Your task to perform on an android device: Show me recent news Image 0: 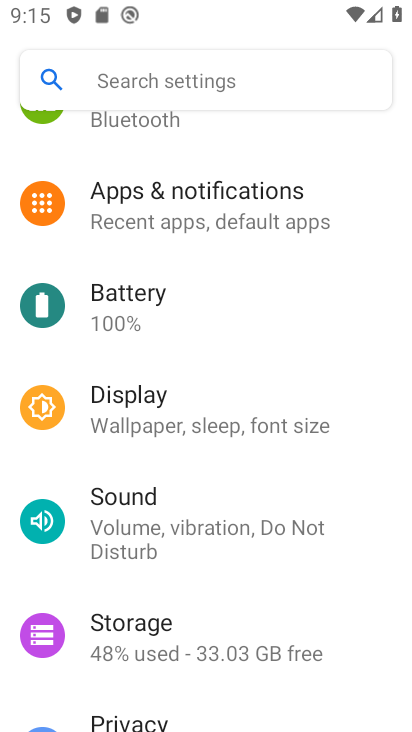
Step 0: press home button
Your task to perform on an android device: Show me recent news Image 1: 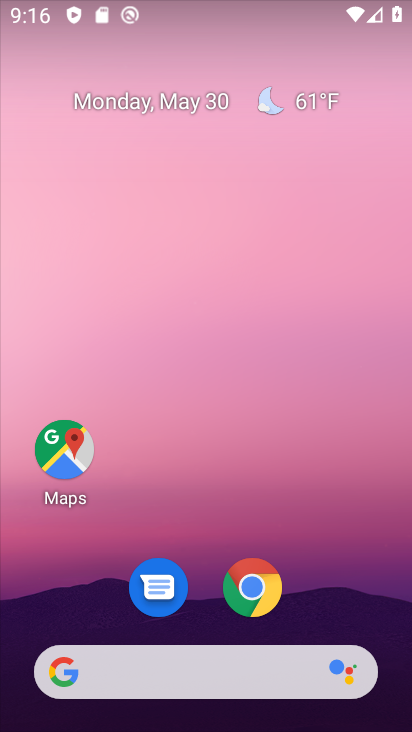
Step 1: click (223, 697)
Your task to perform on an android device: Show me recent news Image 2: 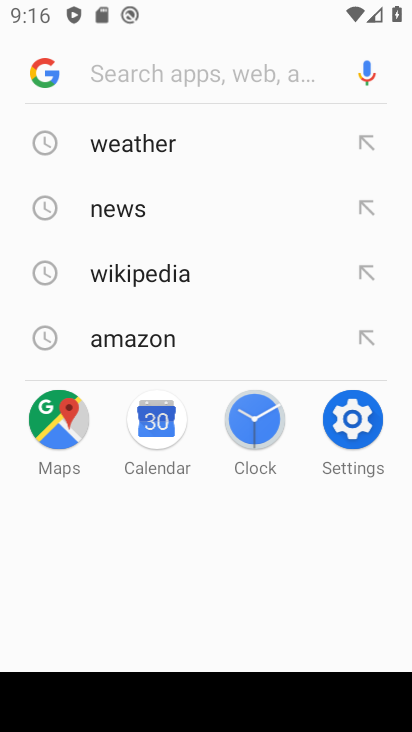
Step 2: click (127, 223)
Your task to perform on an android device: Show me recent news Image 3: 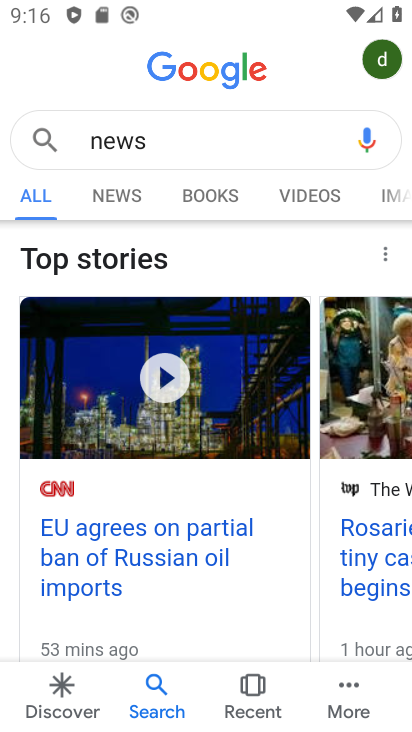
Step 3: click (128, 203)
Your task to perform on an android device: Show me recent news Image 4: 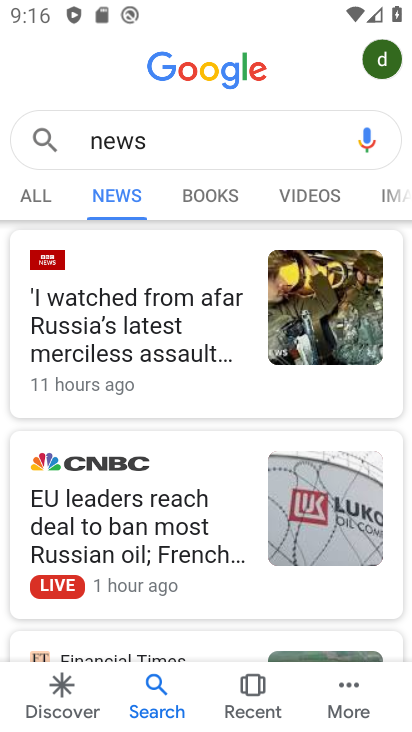
Step 4: task complete